Your task to perform on an android device: Open the web browser Image 0: 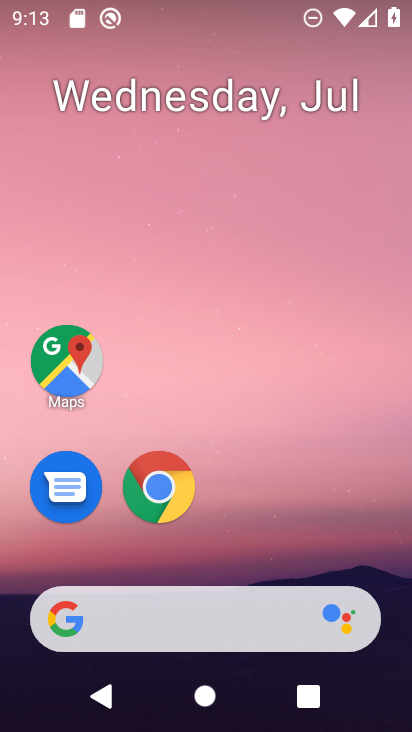
Step 0: drag from (374, 548) to (382, 113)
Your task to perform on an android device: Open the web browser Image 1: 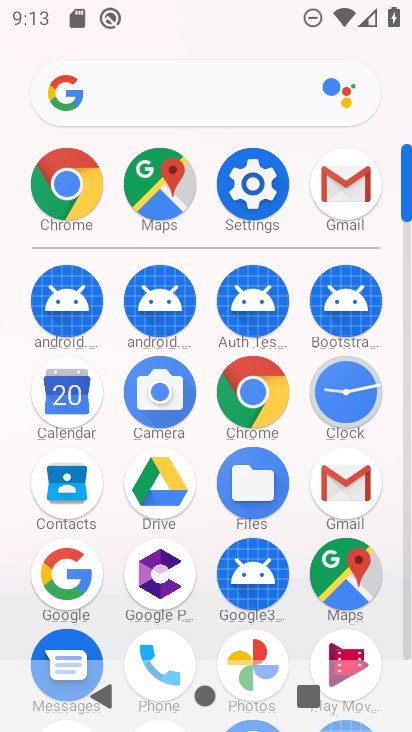
Step 1: click (250, 389)
Your task to perform on an android device: Open the web browser Image 2: 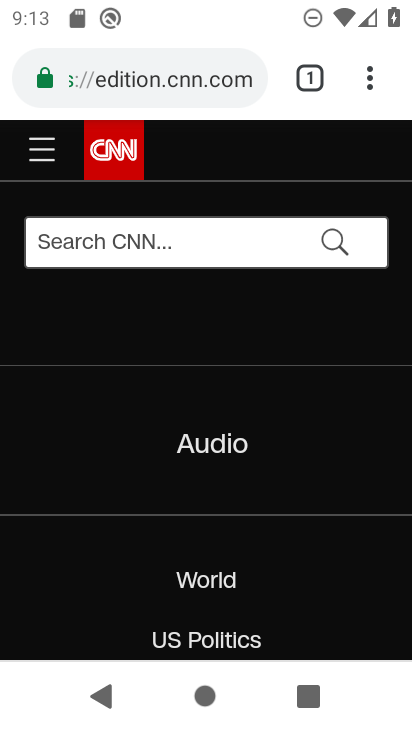
Step 2: task complete